Your task to perform on an android device: Open Reddit.com Image 0: 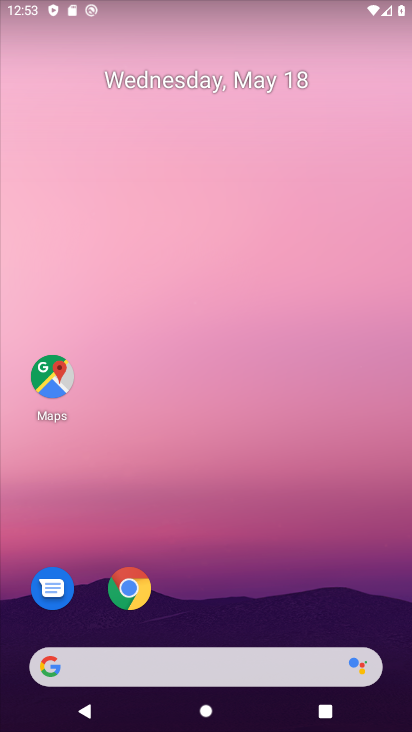
Step 0: drag from (374, 610) to (359, 140)
Your task to perform on an android device: Open Reddit.com Image 1: 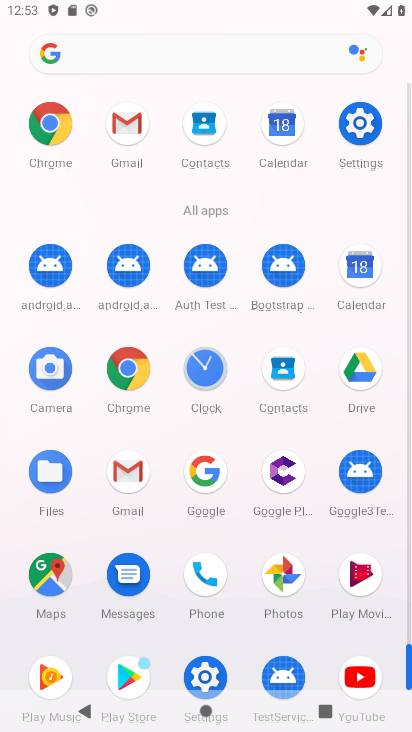
Step 1: click (127, 368)
Your task to perform on an android device: Open Reddit.com Image 2: 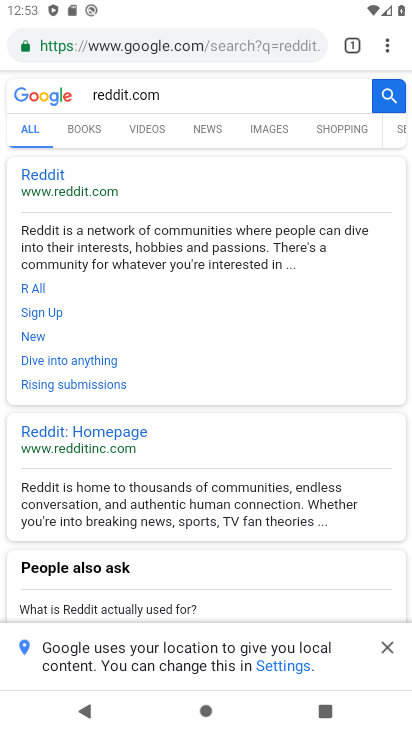
Step 2: drag from (304, 556) to (312, 384)
Your task to perform on an android device: Open Reddit.com Image 3: 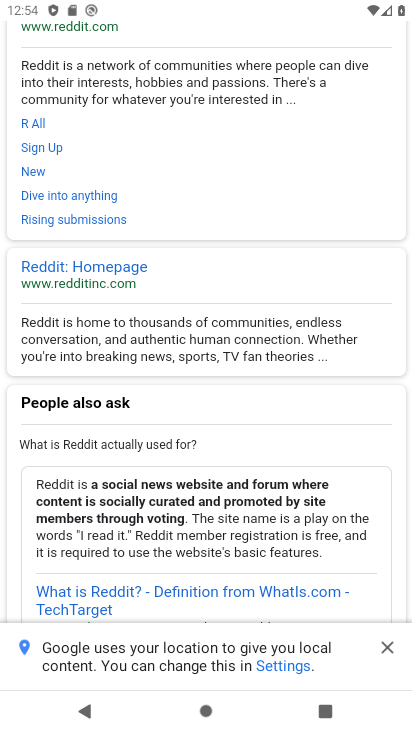
Step 3: drag from (299, 228) to (283, 462)
Your task to perform on an android device: Open Reddit.com Image 4: 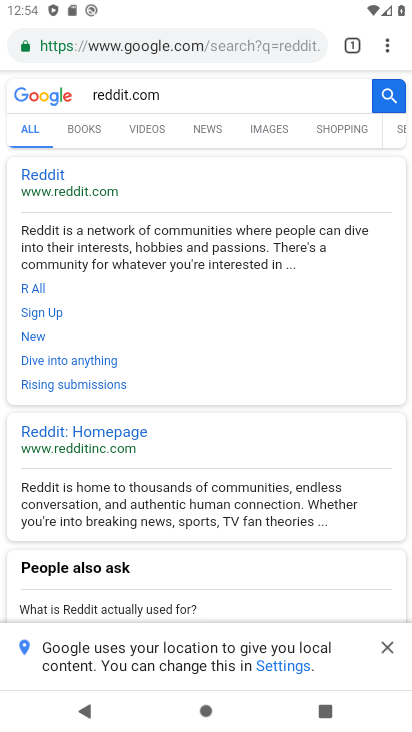
Step 4: click (29, 173)
Your task to perform on an android device: Open Reddit.com Image 5: 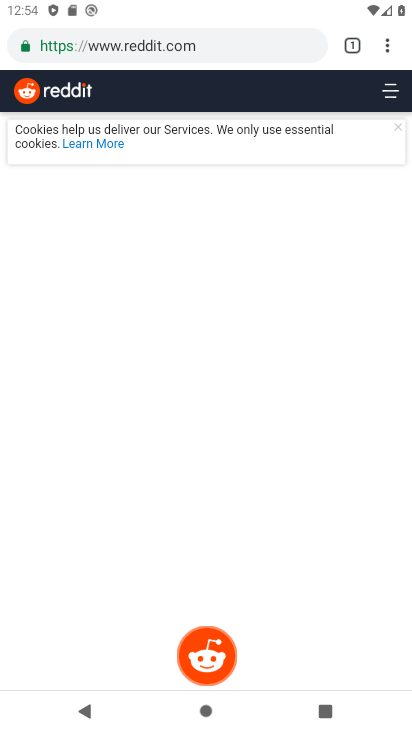
Step 5: task complete